Your task to perform on an android device: What is the news today? Image 0: 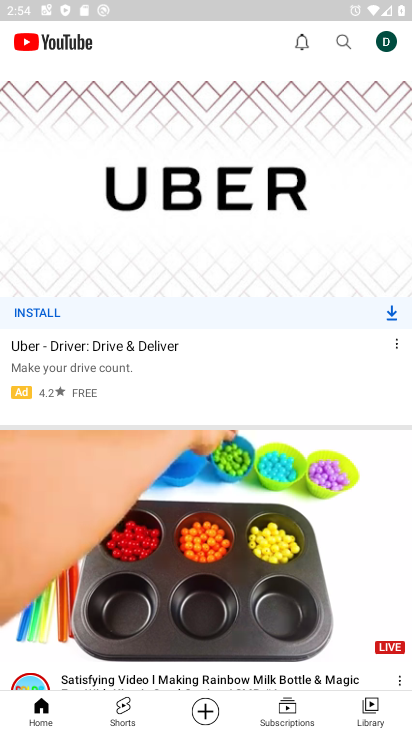
Step 0: press home button
Your task to perform on an android device: What is the news today? Image 1: 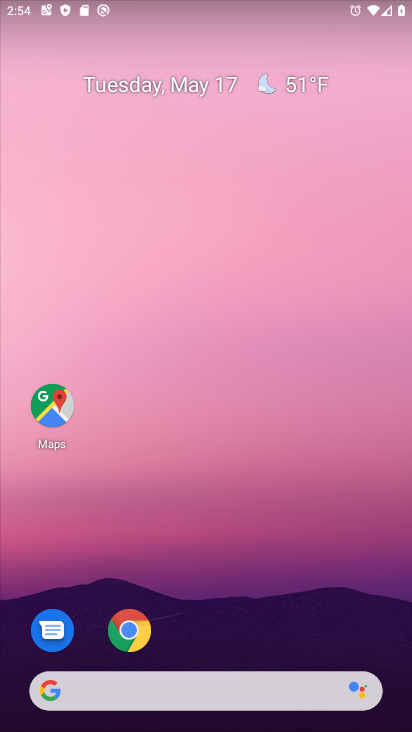
Step 1: click (245, 695)
Your task to perform on an android device: What is the news today? Image 2: 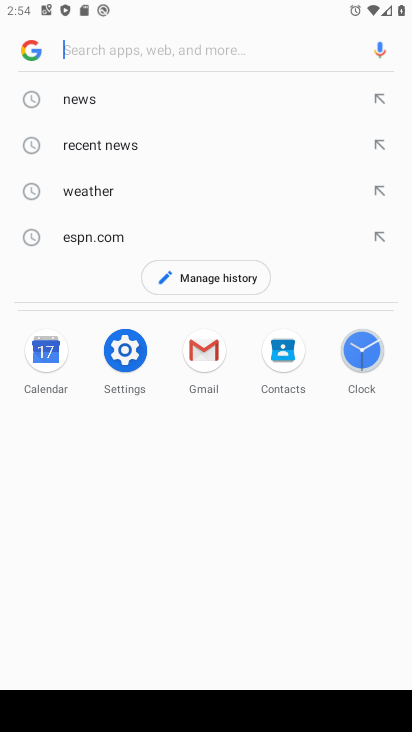
Step 2: click (87, 95)
Your task to perform on an android device: What is the news today? Image 3: 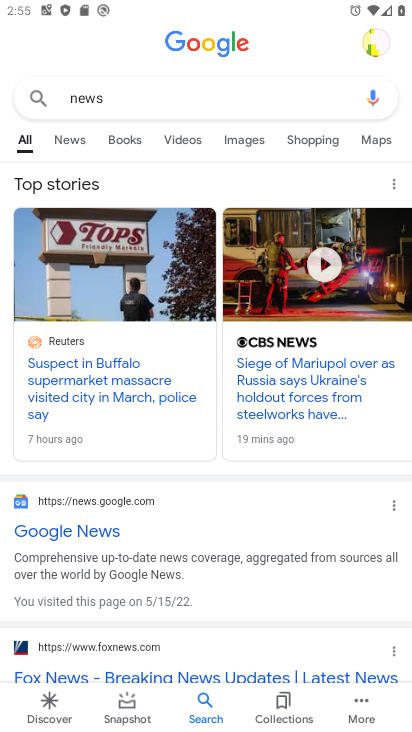
Step 3: task complete